Your task to perform on an android device: Open notification settings Image 0: 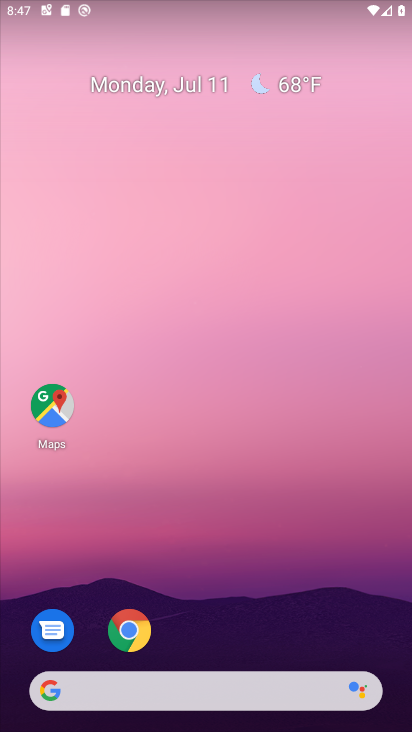
Step 0: drag from (247, 610) to (284, 14)
Your task to perform on an android device: Open notification settings Image 1: 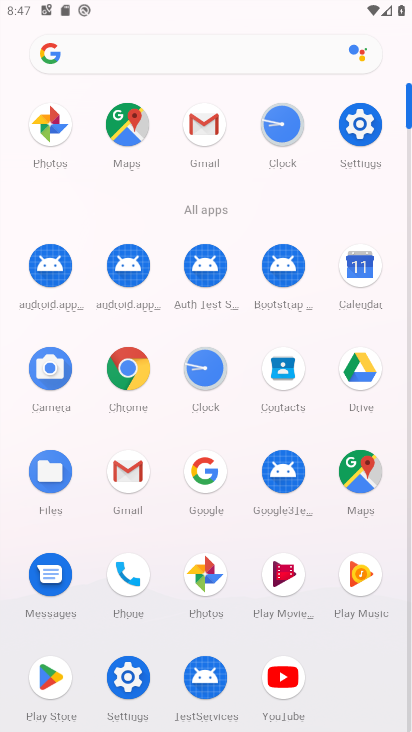
Step 1: click (132, 675)
Your task to perform on an android device: Open notification settings Image 2: 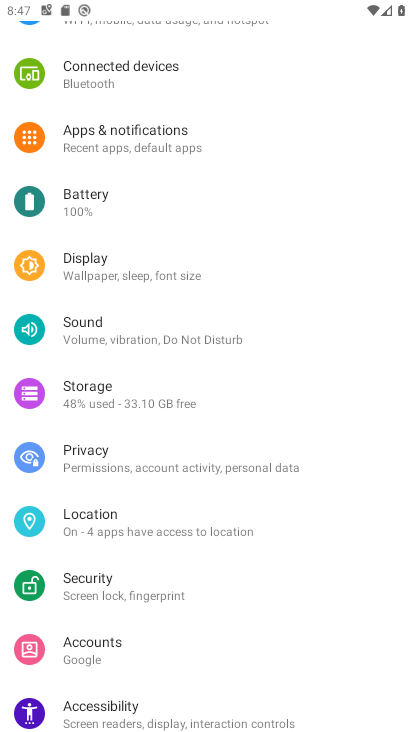
Step 2: click (150, 141)
Your task to perform on an android device: Open notification settings Image 3: 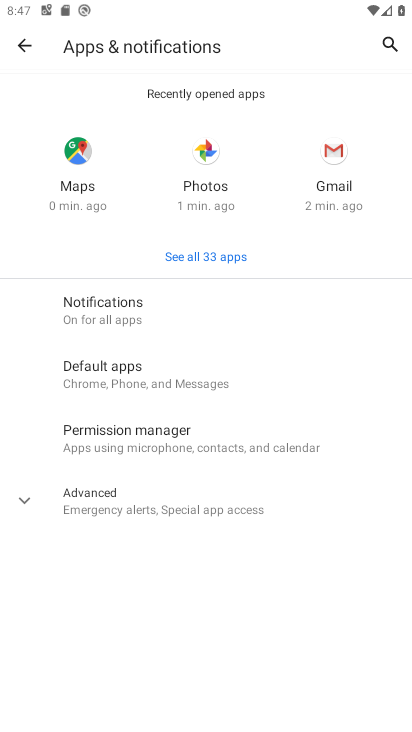
Step 3: click (115, 307)
Your task to perform on an android device: Open notification settings Image 4: 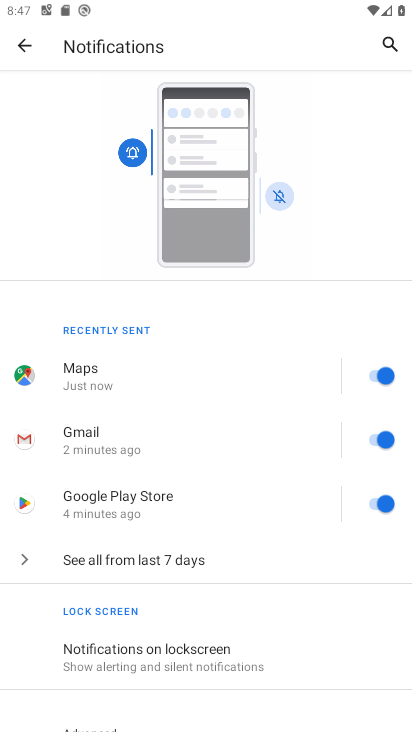
Step 4: task complete